Your task to perform on an android device: Go to privacy settings Image 0: 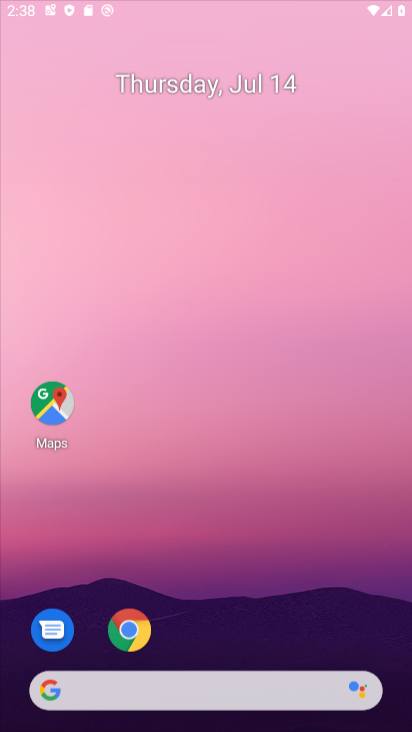
Step 0: press home button
Your task to perform on an android device: Go to privacy settings Image 1: 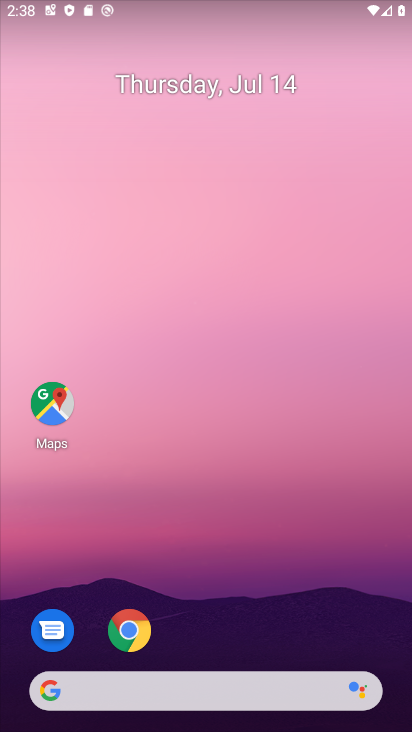
Step 1: drag from (214, 645) to (242, 60)
Your task to perform on an android device: Go to privacy settings Image 2: 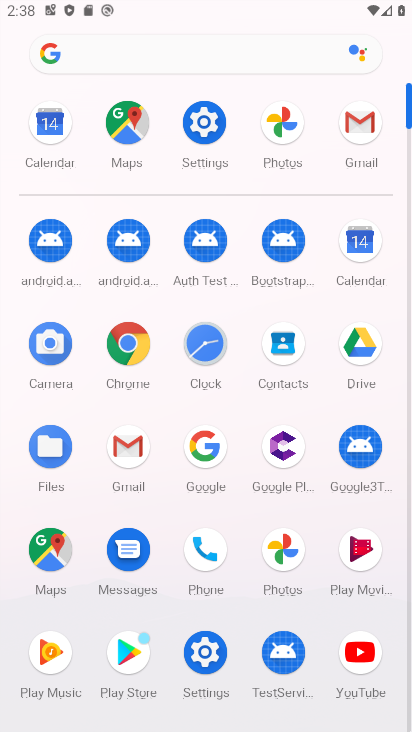
Step 2: click (201, 119)
Your task to perform on an android device: Go to privacy settings Image 3: 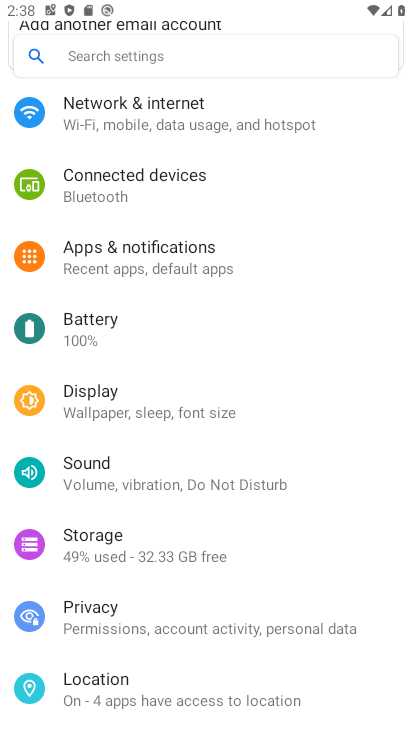
Step 3: click (132, 612)
Your task to perform on an android device: Go to privacy settings Image 4: 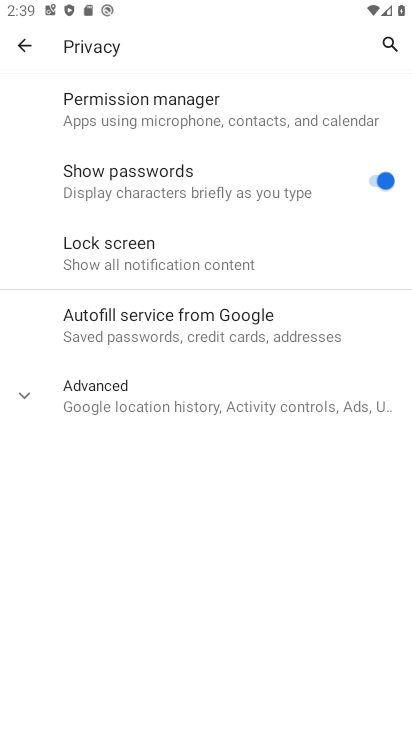
Step 4: click (26, 390)
Your task to perform on an android device: Go to privacy settings Image 5: 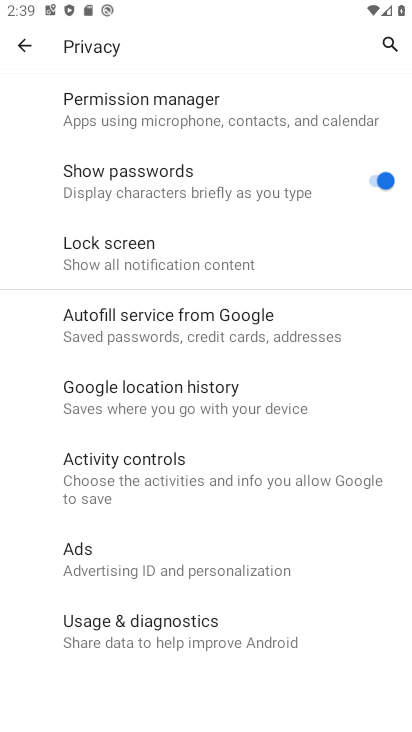
Step 5: task complete